Your task to perform on an android device: Go to wifi settings Image 0: 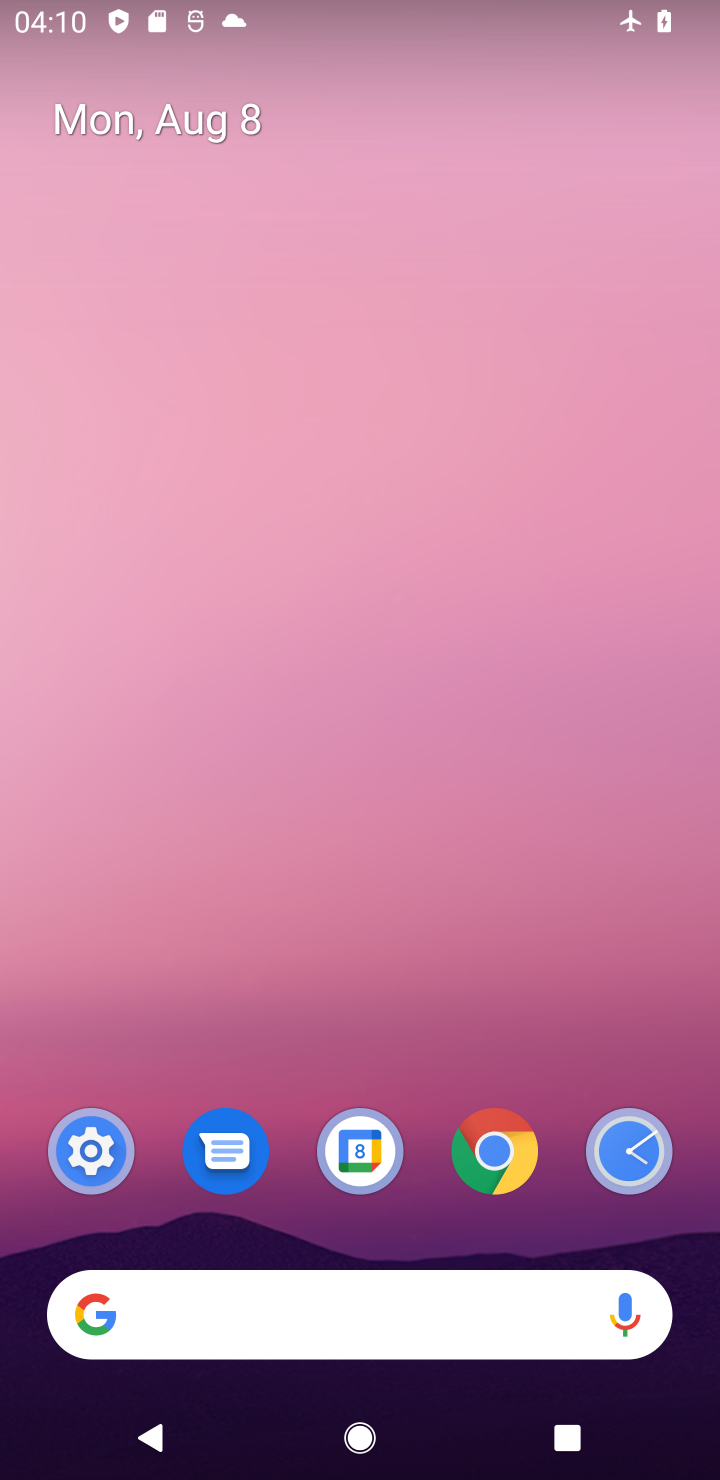
Step 0: click (86, 1178)
Your task to perform on an android device: Go to wifi settings Image 1: 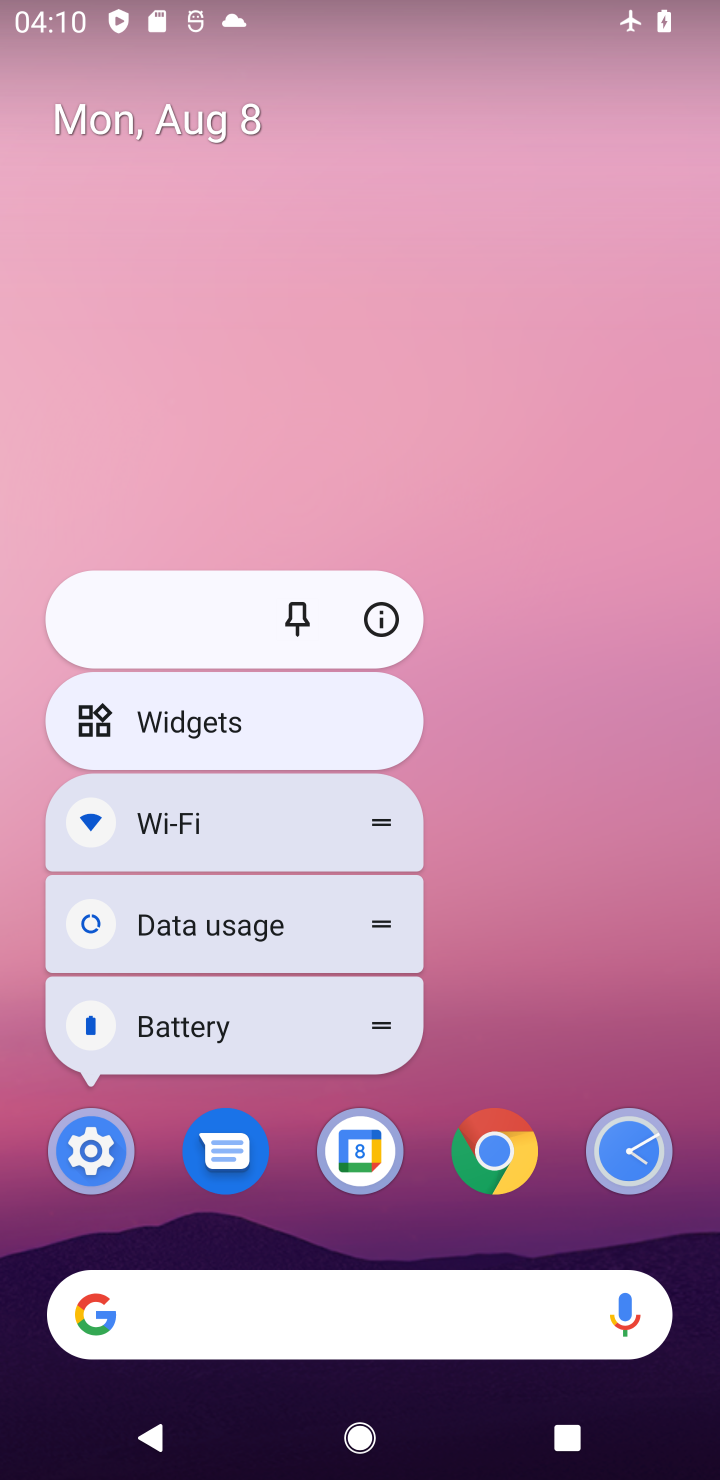
Step 1: click (86, 1178)
Your task to perform on an android device: Go to wifi settings Image 2: 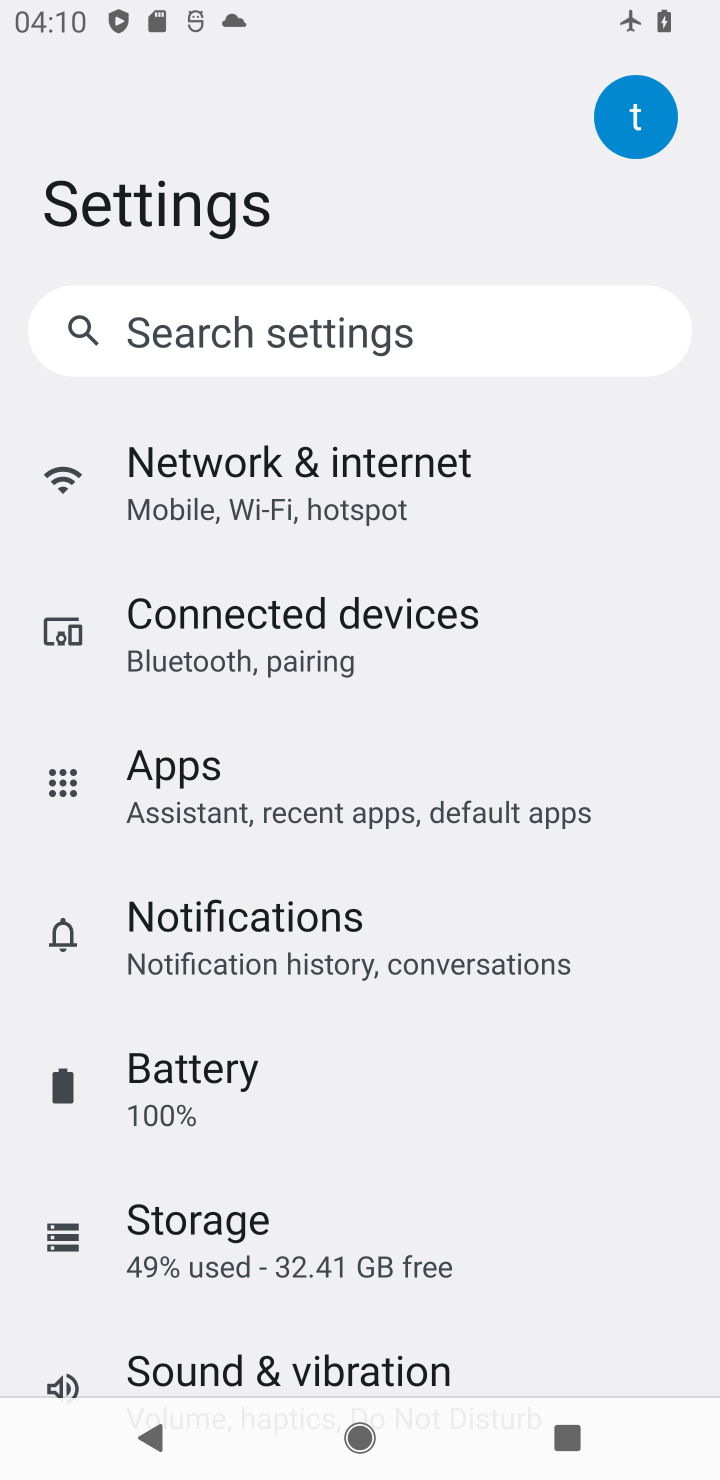
Step 2: click (254, 486)
Your task to perform on an android device: Go to wifi settings Image 3: 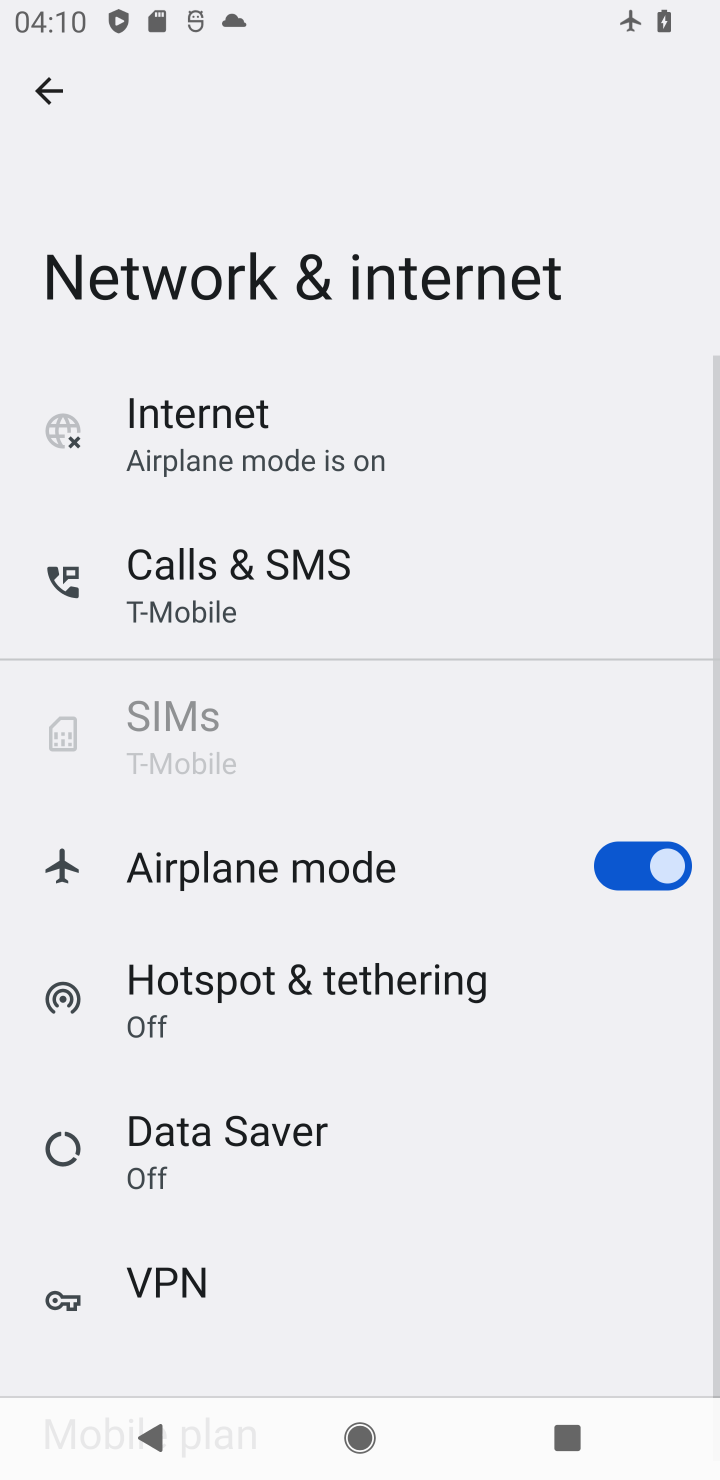
Step 3: click (275, 396)
Your task to perform on an android device: Go to wifi settings Image 4: 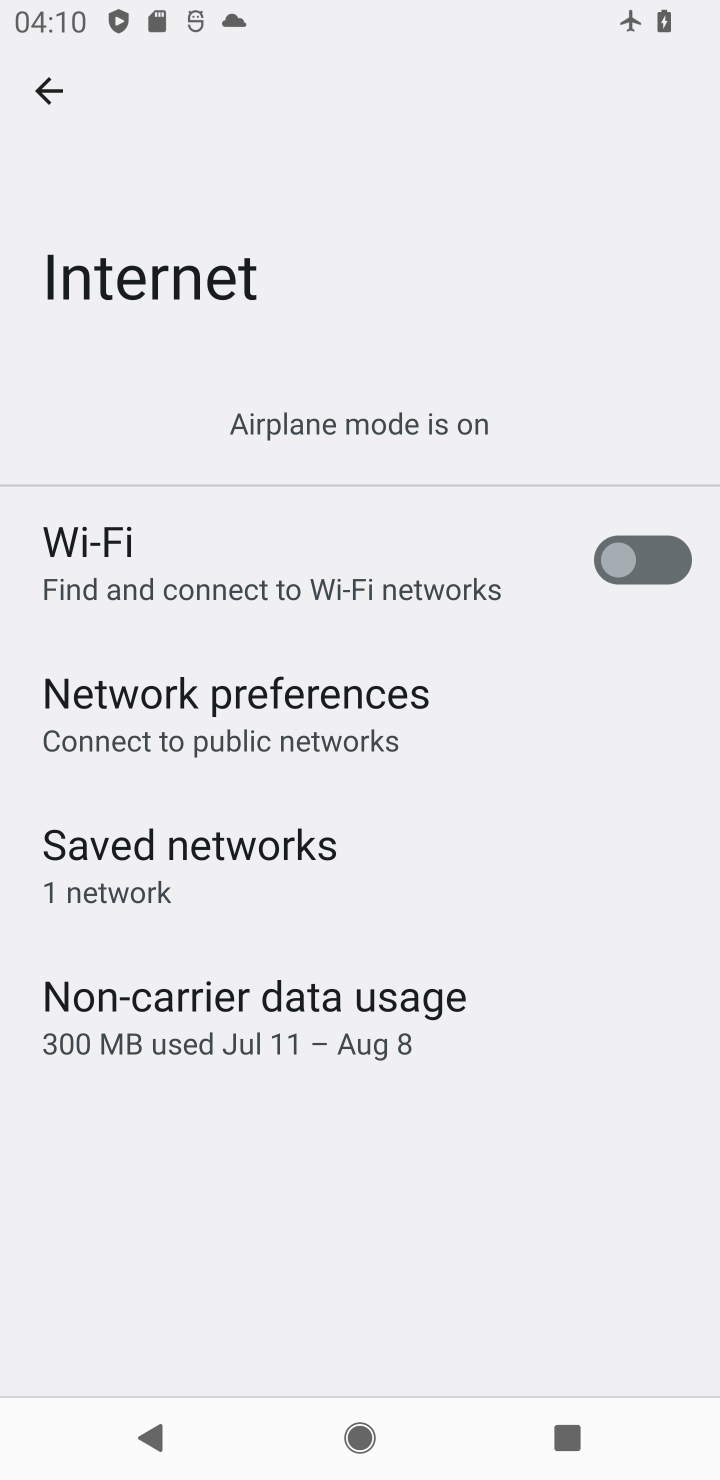
Step 4: click (332, 572)
Your task to perform on an android device: Go to wifi settings Image 5: 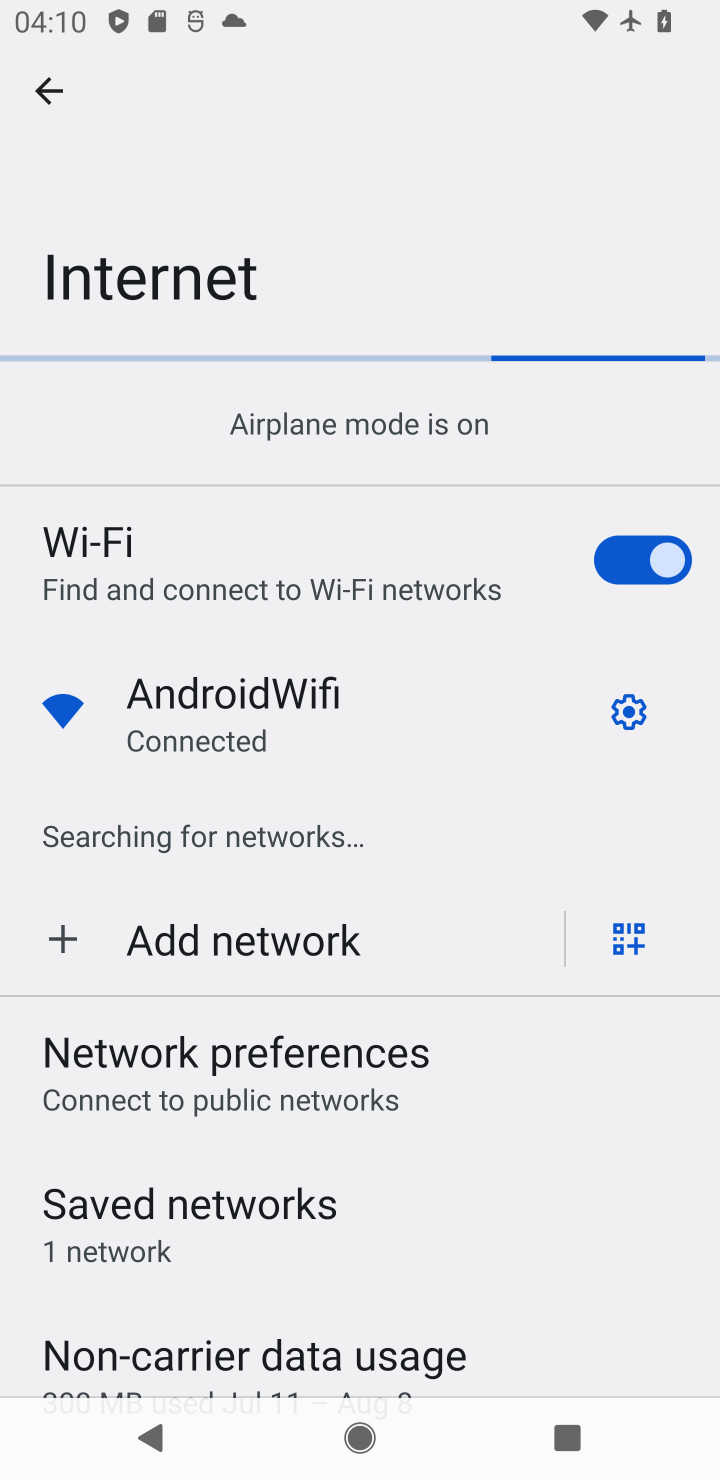
Step 5: task complete